Your task to perform on an android device: turn notification dots off Image 0: 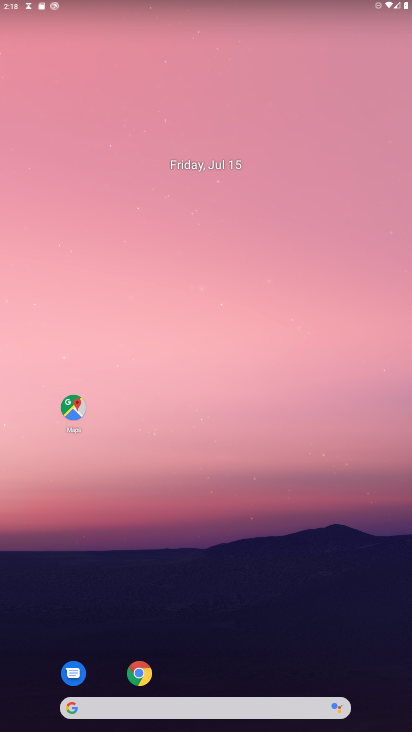
Step 0: drag from (242, 693) to (277, 350)
Your task to perform on an android device: turn notification dots off Image 1: 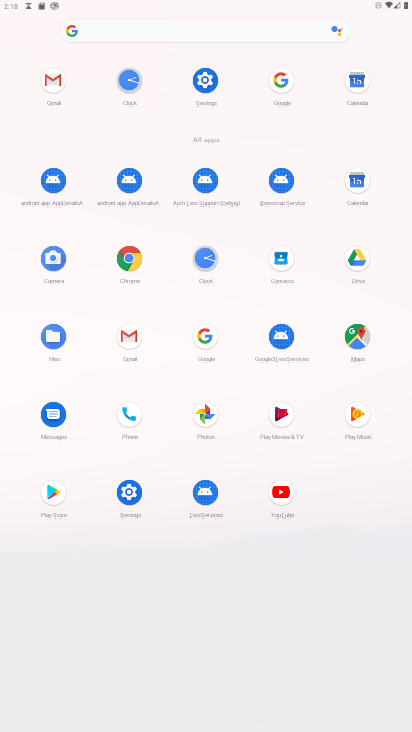
Step 1: click (203, 77)
Your task to perform on an android device: turn notification dots off Image 2: 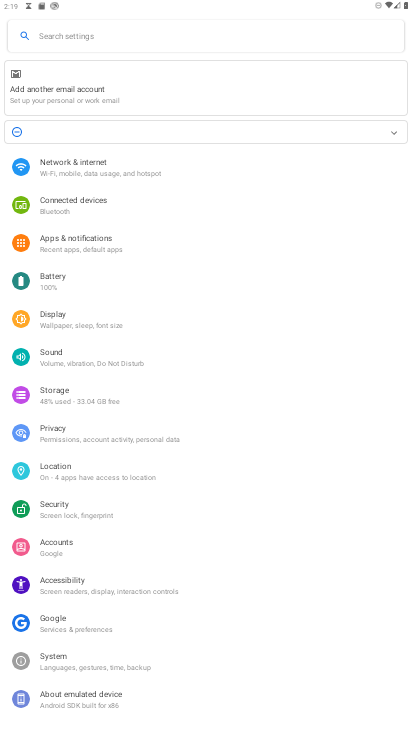
Step 2: click (54, 246)
Your task to perform on an android device: turn notification dots off Image 3: 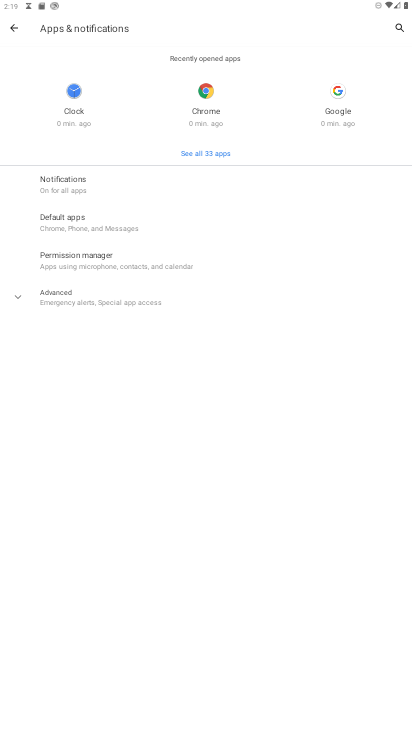
Step 3: click (53, 187)
Your task to perform on an android device: turn notification dots off Image 4: 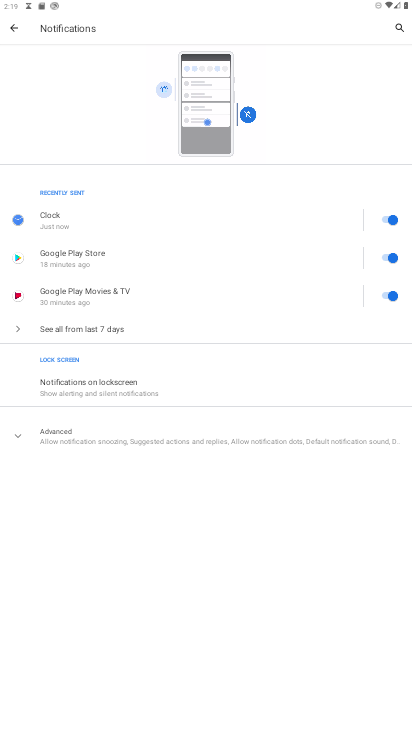
Step 4: click (45, 438)
Your task to perform on an android device: turn notification dots off Image 5: 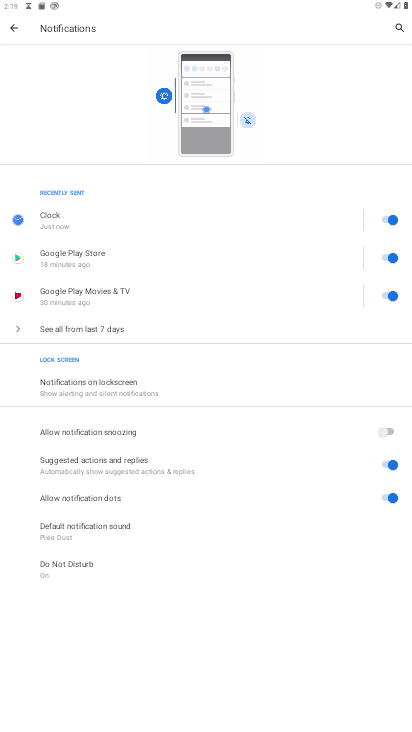
Step 5: click (382, 496)
Your task to perform on an android device: turn notification dots off Image 6: 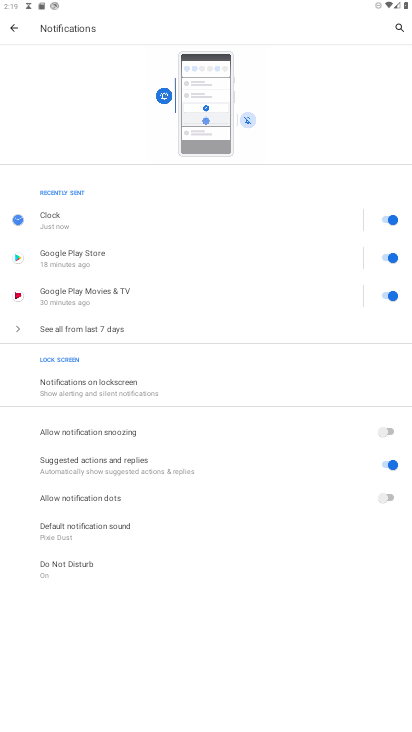
Step 6: task complete